Your task to perform on an android device: turn on data saver in the chrome app Image 0: 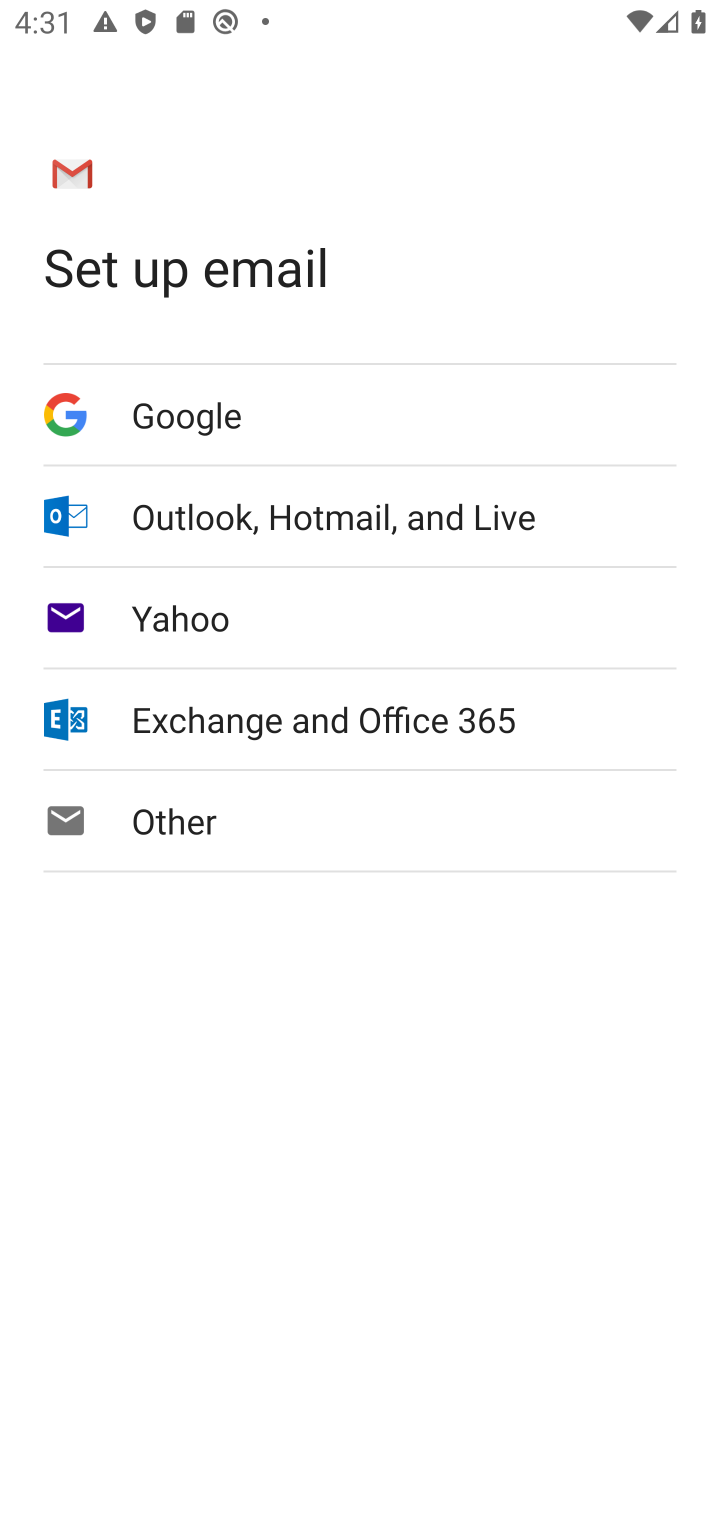
Step 0: press home button
Your task to perform on an android device: turn on data saver in the chrome app Image 1: 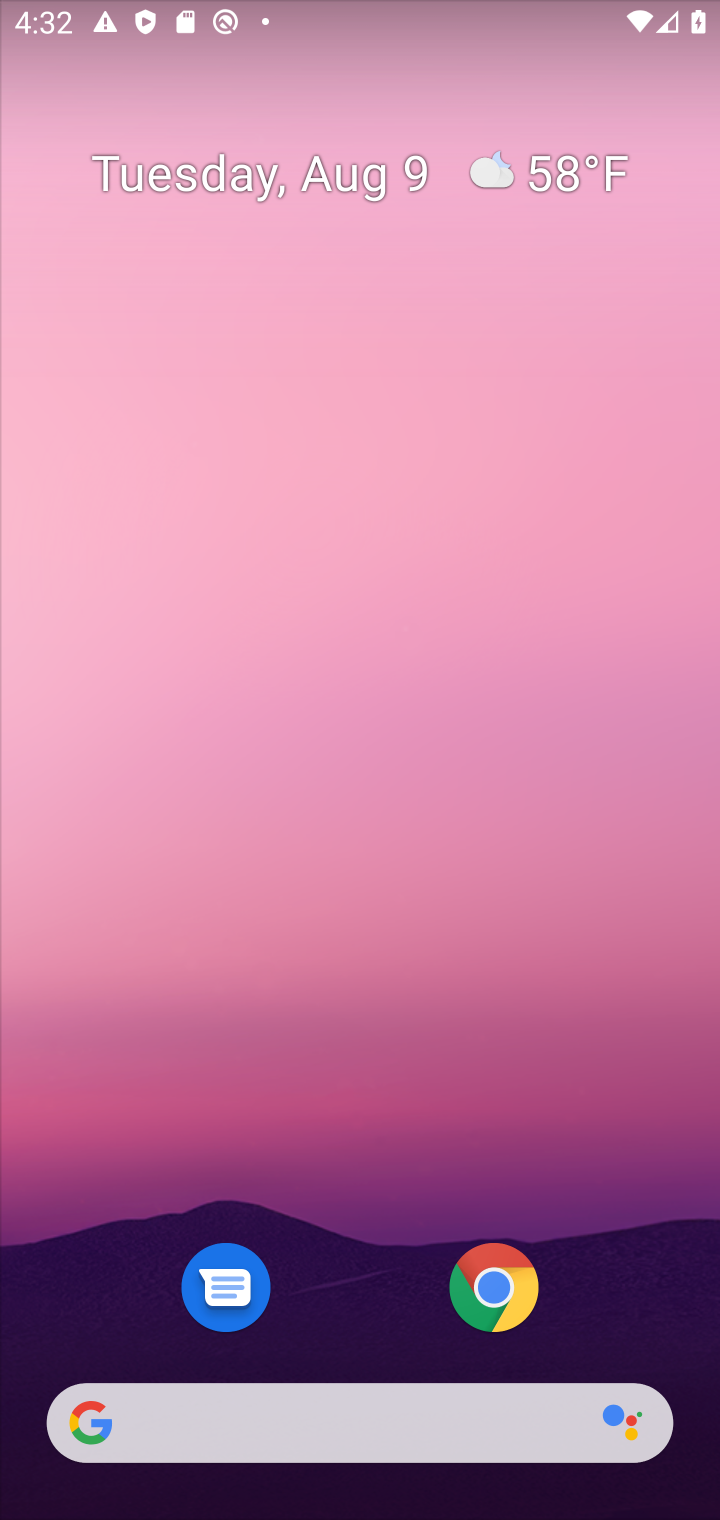
Step 1: click (481, 1266)
Your task to perform on an android device: turn on data saver in the chrome app Image 2: 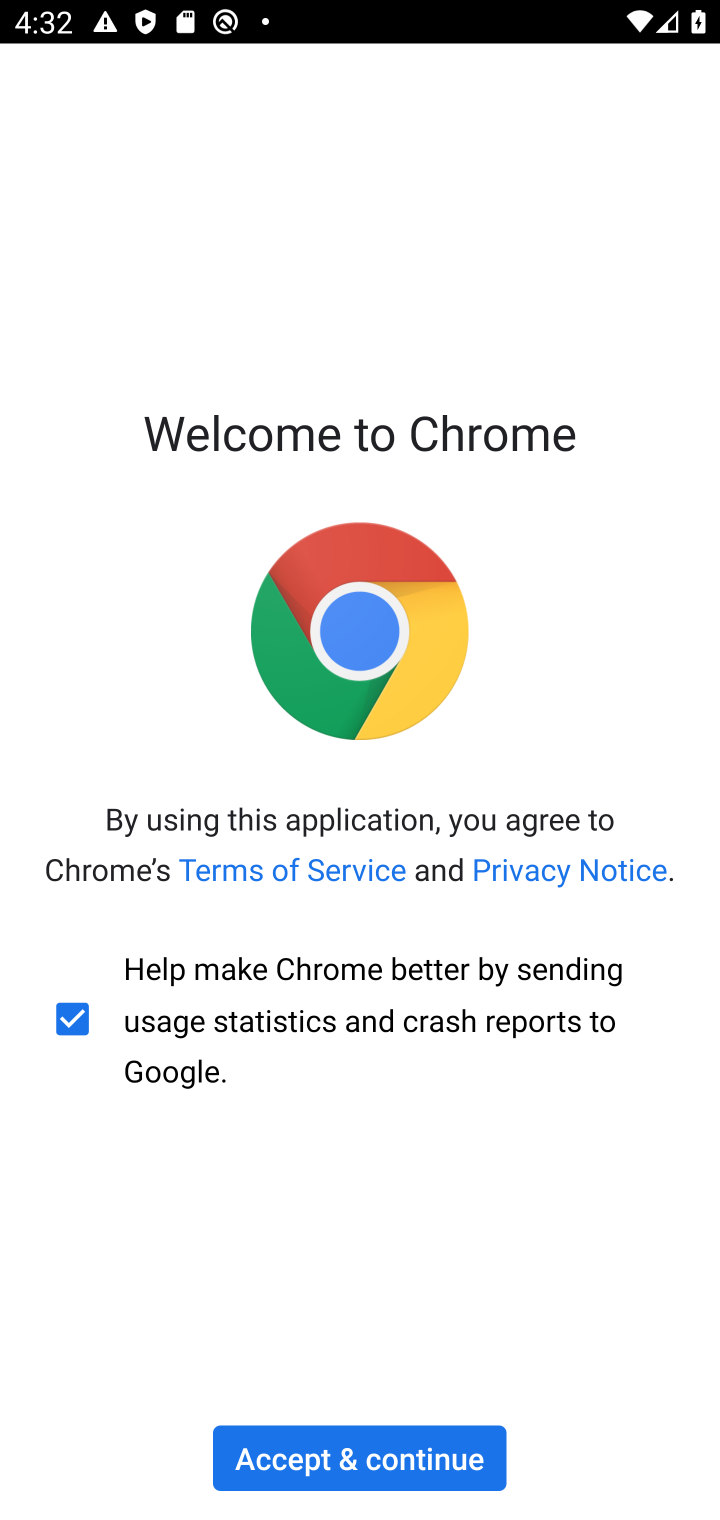
Step 2: click (380, 1452)
Your task to perform on an android device: turn on data saver in the chrome app Image 3: 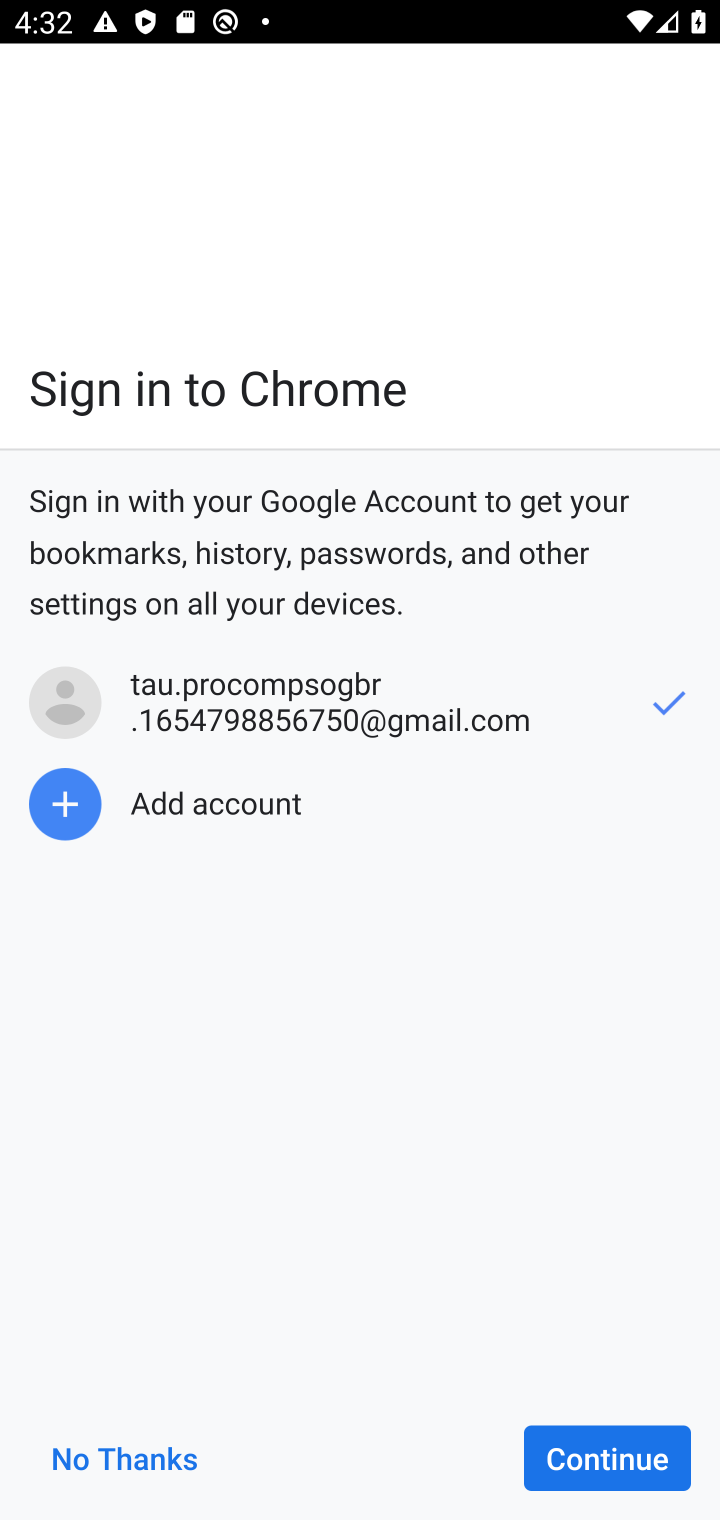
Step 3: click (578, 1449)
Your task to perform on an android device: turn on data saver in the chrome app Image 4: 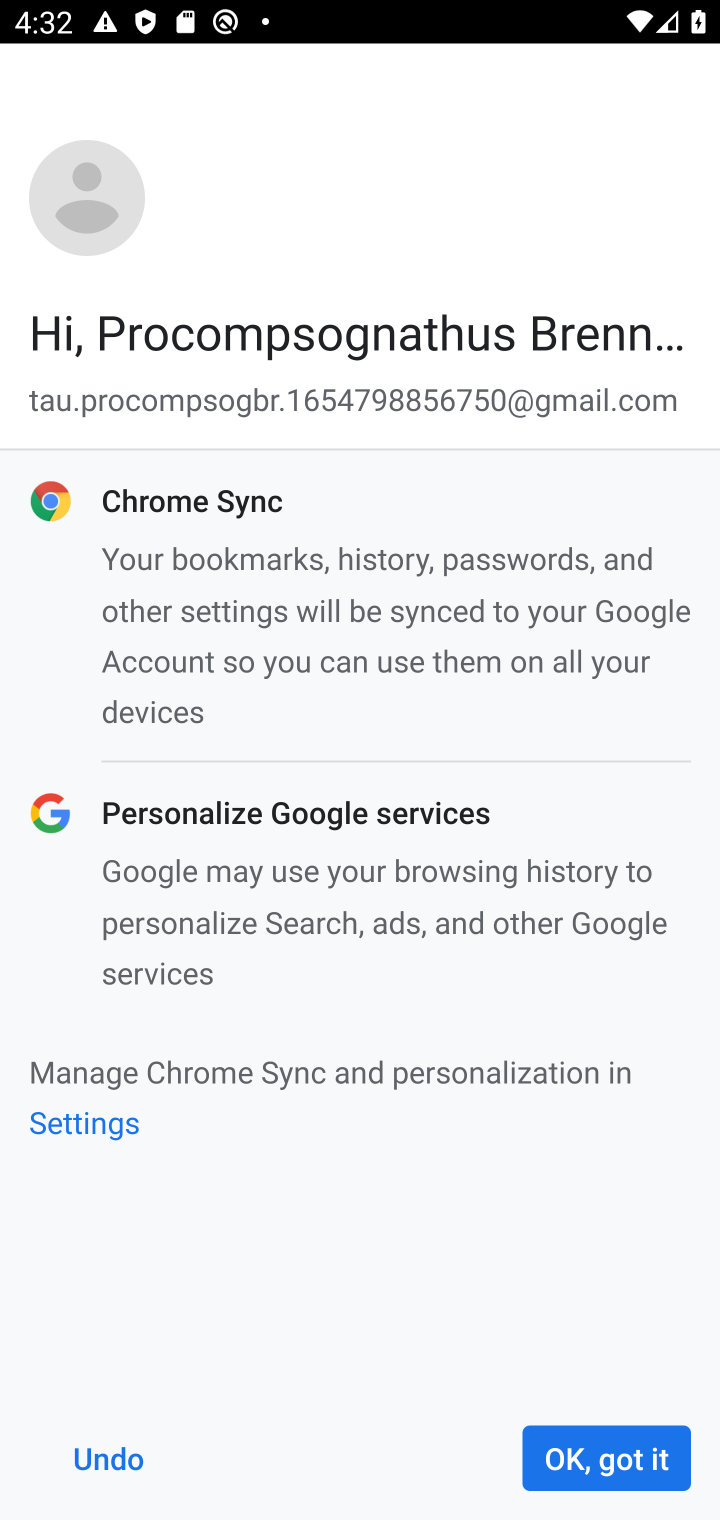
Step 4: click (578, 1449)
Your task to perform on an android device: turn on data saver in the chrome app Image 5: 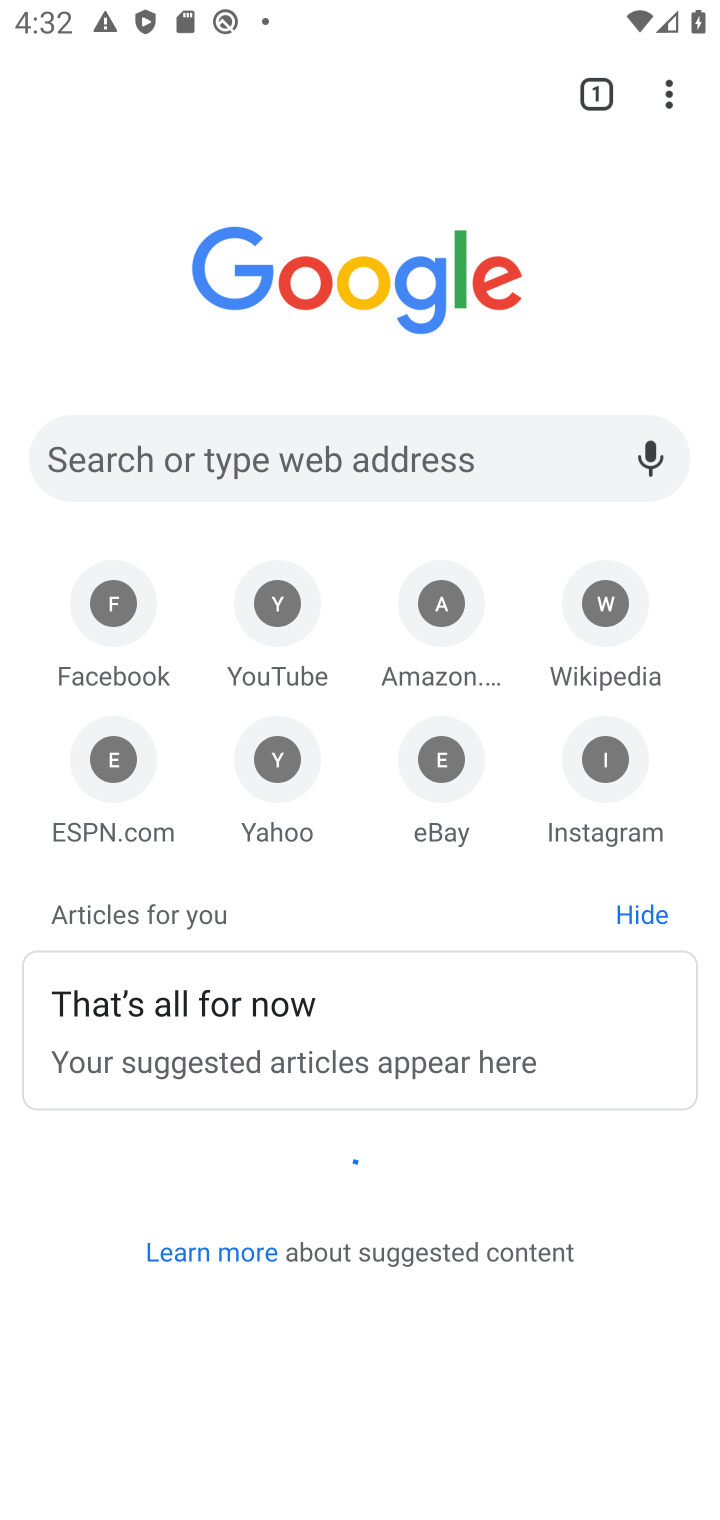
Step 5: task complete